Your task to perform on an android device: turn off smart reply in the gmail app Image 0: 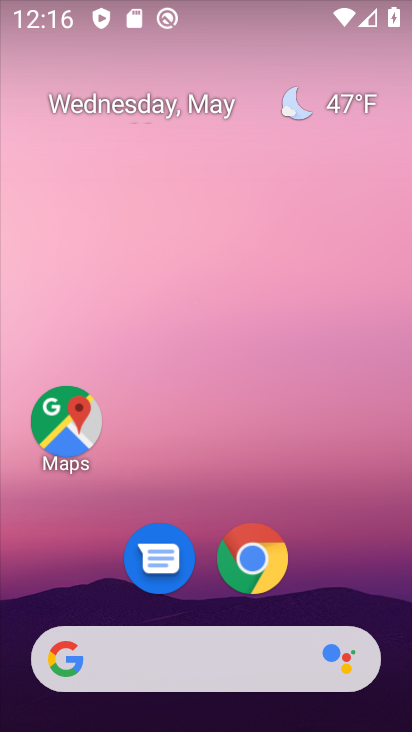
Step 0: drag from (220, 725) to (218, 314)
Your task to perform on an android device: turn off smart reply in the gmail app Image 1: 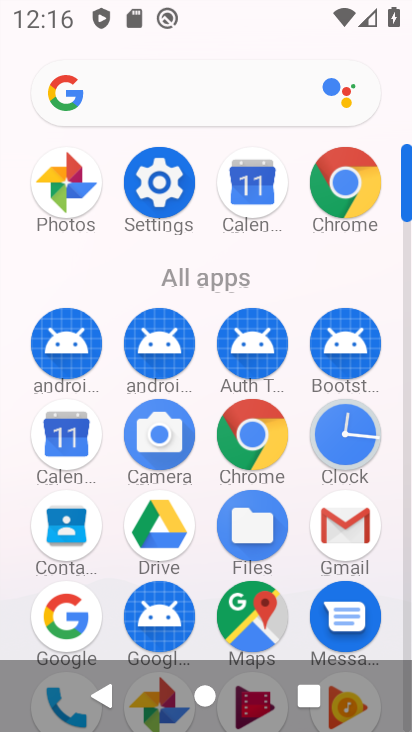
Step 1: click (352, 527)
Your task to perform on an android device: turn off smart reply in the gmail app Image 2: 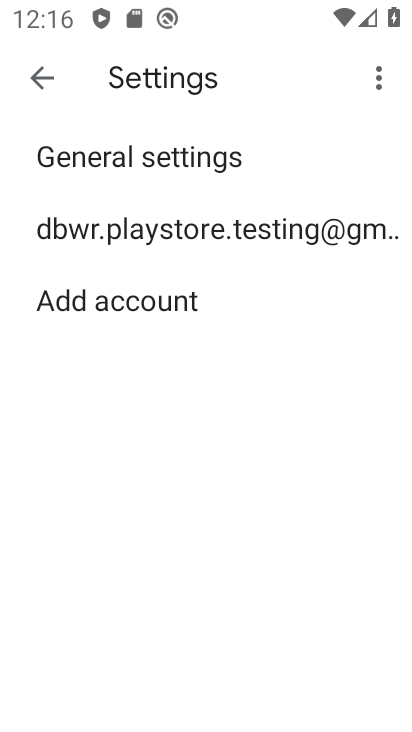
Step 2: click (238, 224)
Your task to perform on an android device: turn off smart reply in the gmail app Image 3: 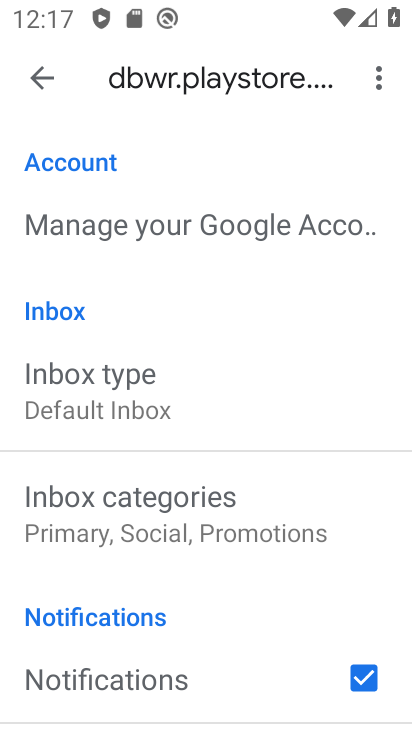
Step 3: drag from (221, 675) to (230, 241)
Your task to perform on an android device: turn off smart reply in the gmail app Image 4: 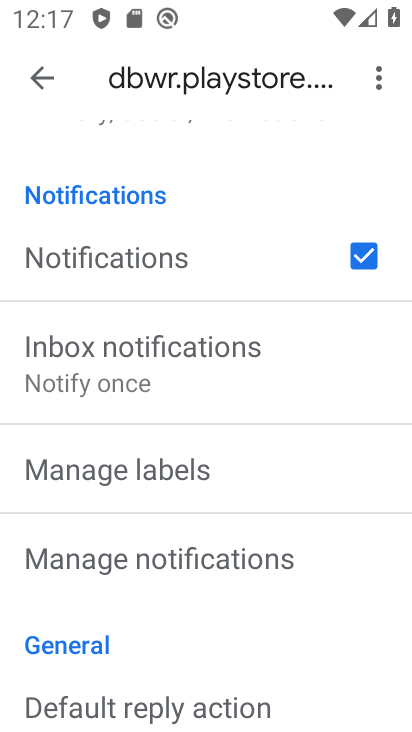
Step 4: drag from (229, 658) to (226, 275)
Your task to perform on an android device: turn off smart reply in the gmail app Image 5: 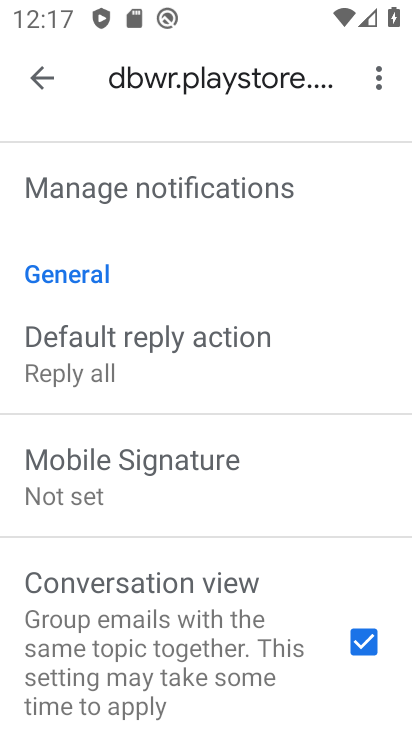
Step 5: drag from (171, 646) to (185, 262)
Your task to perform on an android device: turn off smart reply in the gmail app Image 6: 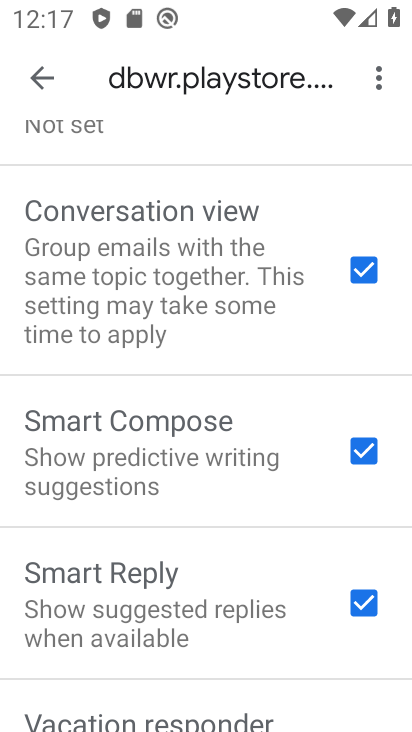
Step 6: drag from (220, 689) to (218, 514)
Your task to perform on an android device: turn off smart reply in the gmail app Image 7: 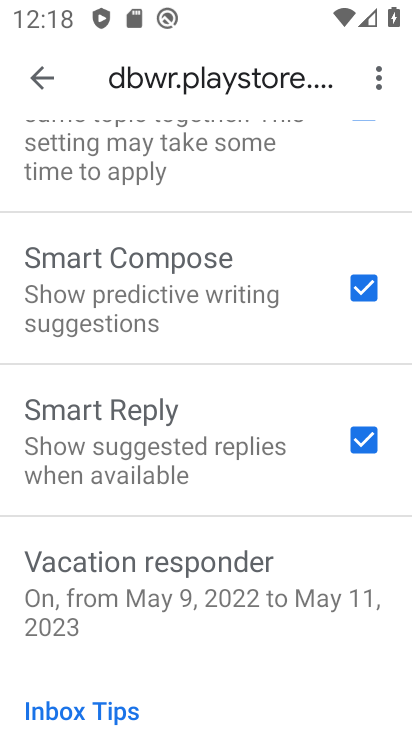
Step 7: click (359, 438)
Your task to perform on an android device: turn off smart reply in the gmail app Image 8: 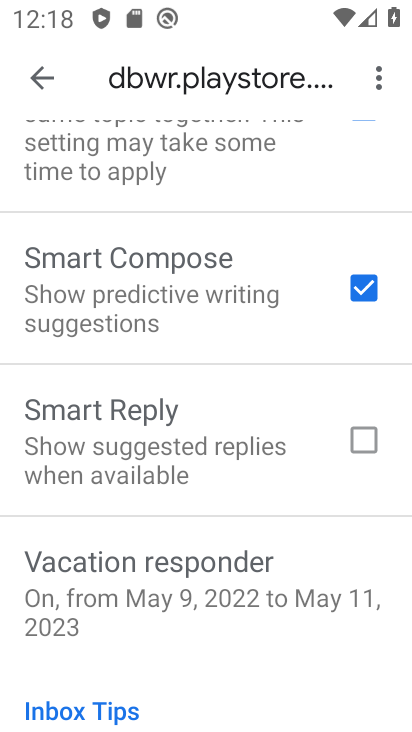
Step 8: task complete